Your task to perform on an android device: turn pop-ups on in chrome Image 0: 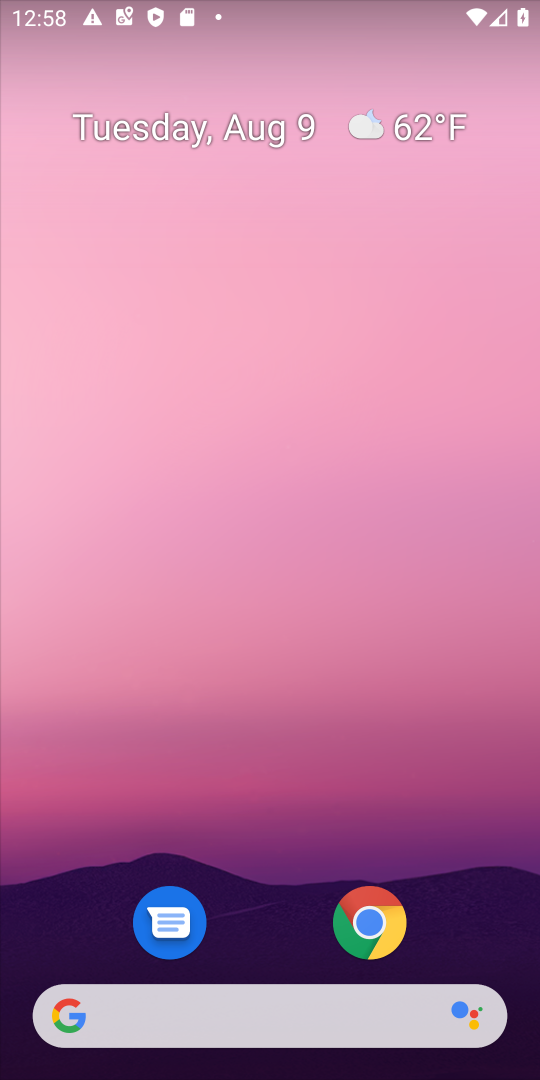
Step 0: click (393, 941)
Your task to perform on an android device: turn pop-ups on in chrome Image 1: 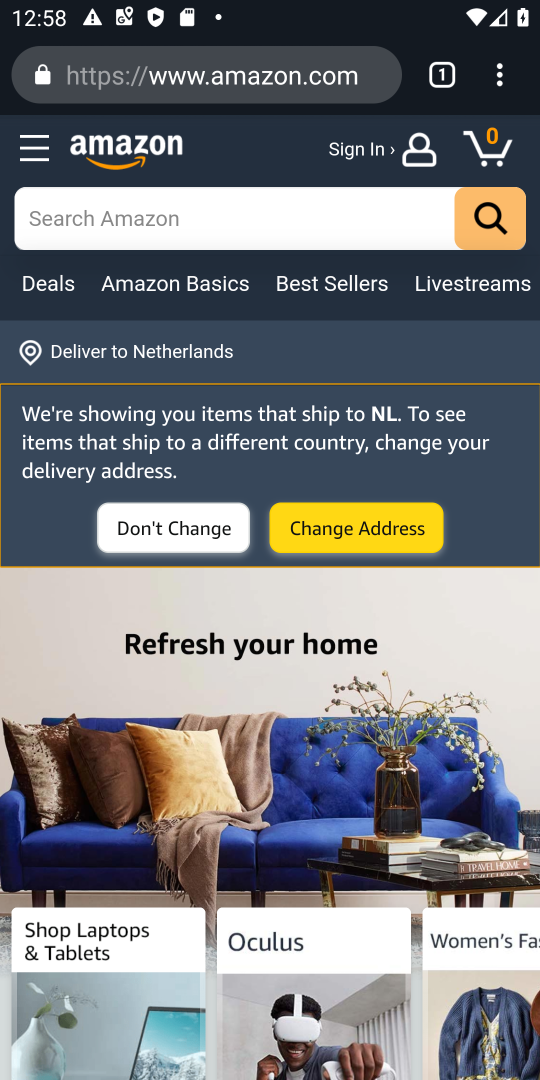
Step 1: click (504, 67)
Your task to perform on an android device: turn pop-ups on in chrome Image 2: 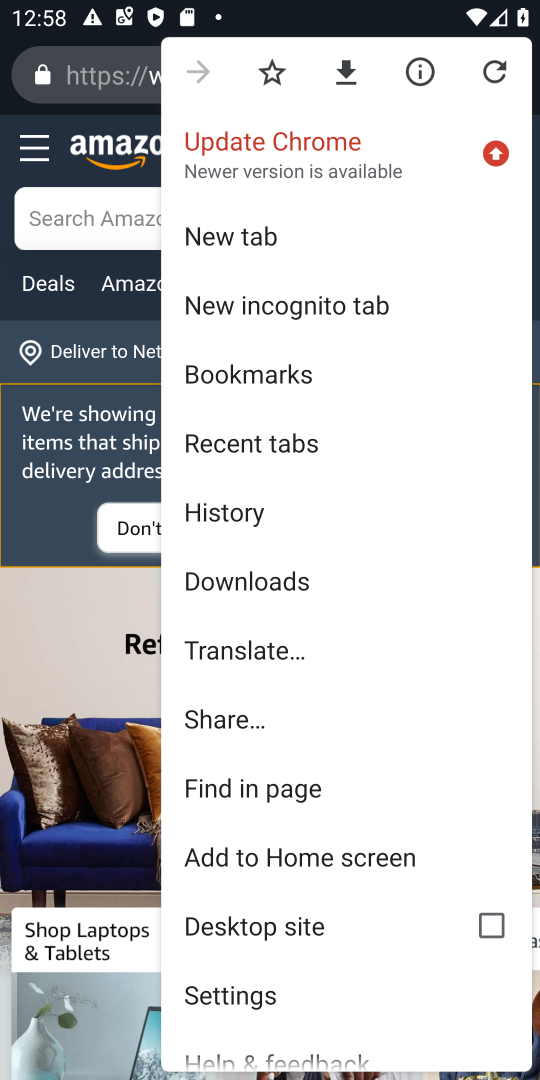
Step 2: click (239, 997)
Your task to perform on an android device: turn pop-ups on in chrome Image 3: 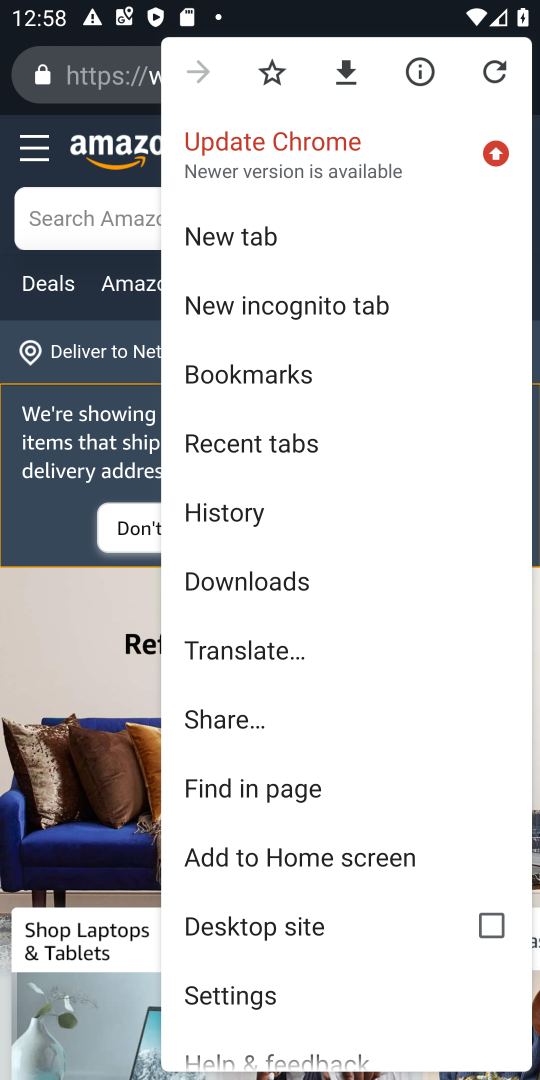
Step 3: click (239, 997)
Your task to perform on an android device: turn pop-ups on in chrome Image 4: 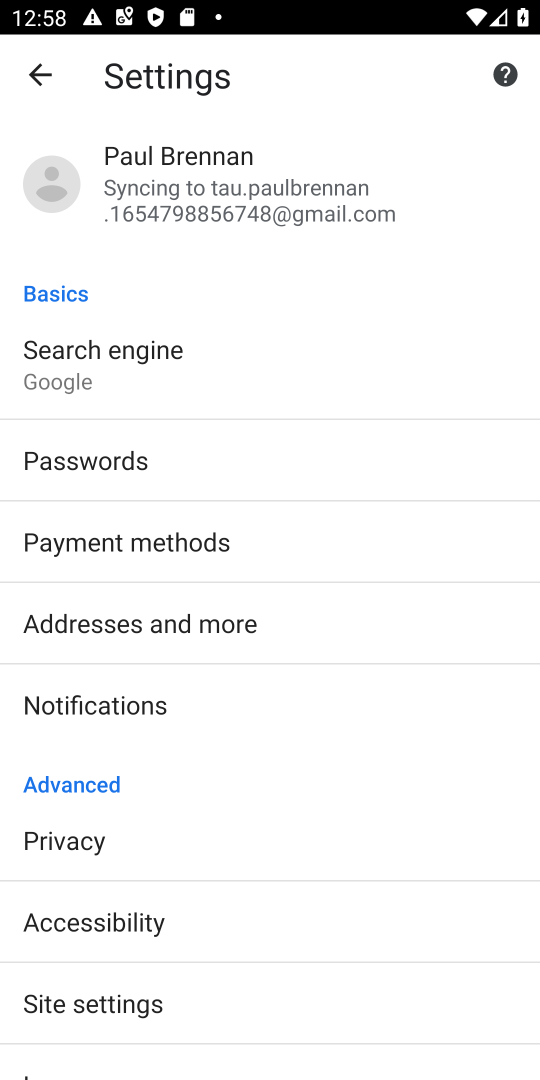
Step 4: click (108, 986)
Your task to perform on an android device: turn pop-ups on in chrome Image 5: 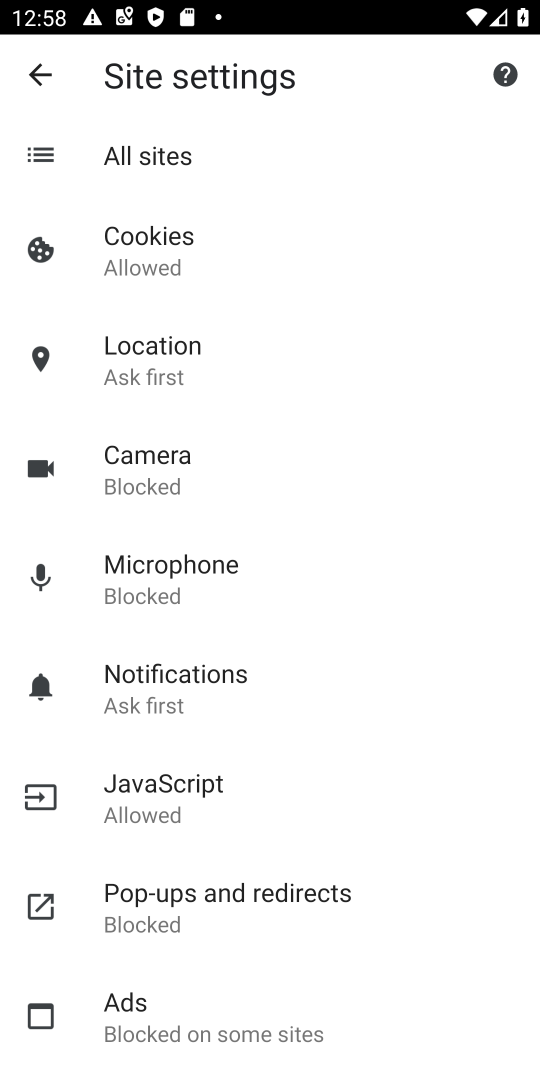
Step 5: click (192, 928)
Your task to perform on an android device: turn pop-ups on in chrome Image 6: 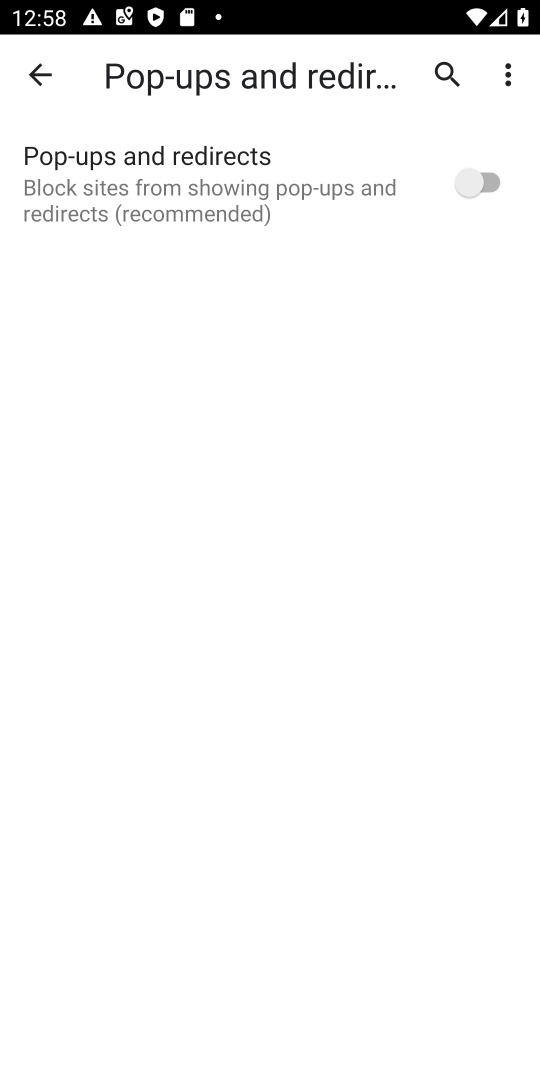
Step 6: click (480, 179)
Your task to perform on an android device: turn pop-ups on in chrome Image 7: 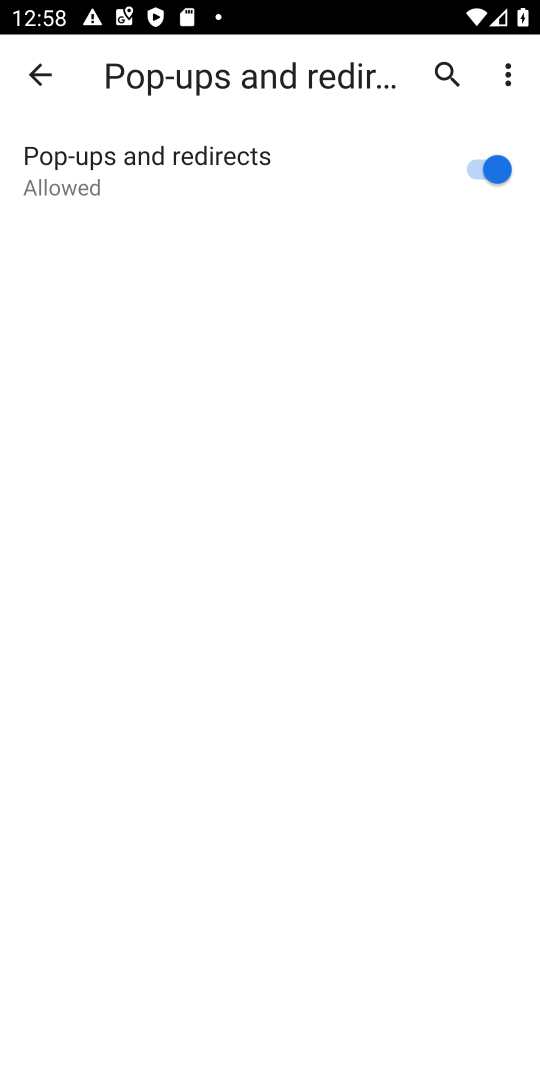
Step 7: task complete